Your task to perform on an android device: install app "WhatsApp Messenger" Image 0: 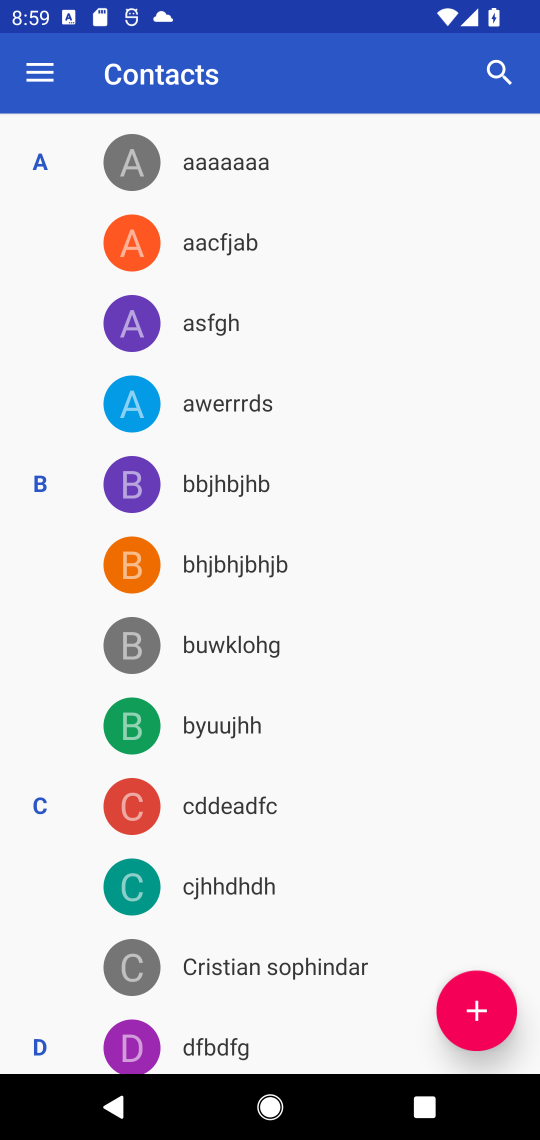
Step 0: press home button
Your task to perform on an android device: install app "WhatsApp Messenger" Image 1: 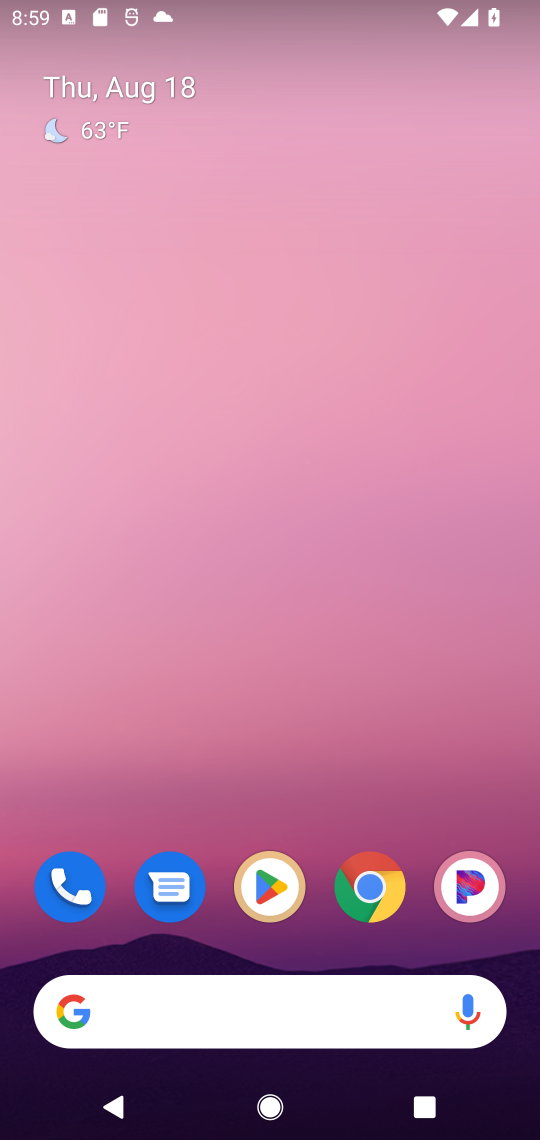
Step 1: click (266, 892)
Your task to perform on an android device: install app "WhatsApp Messenger" Image 2: 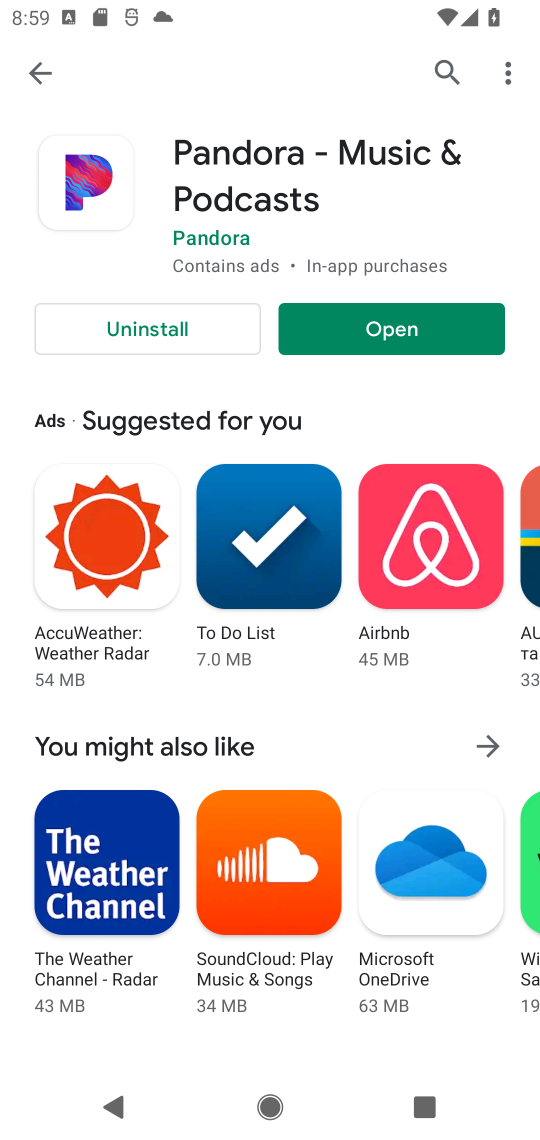
Step 2: click (440, 66)
Your task to perform on an android device: install app "WhatsApp Messenger" Image 3: 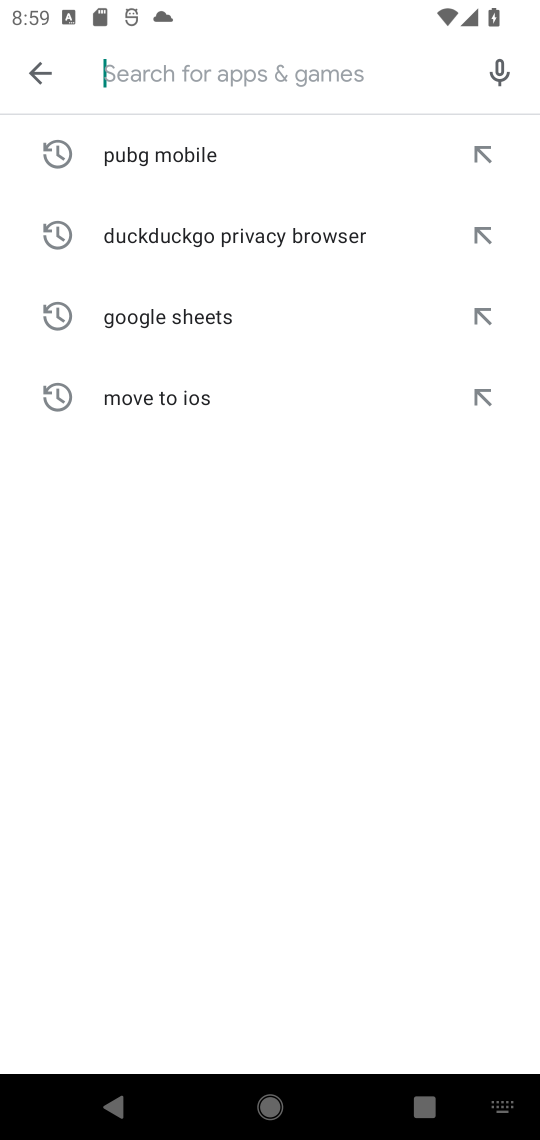
Step 3: type "WhatsApp Messenger"
Your task to perform on an android device: install app "WhatsApp Messenger" Image 4: 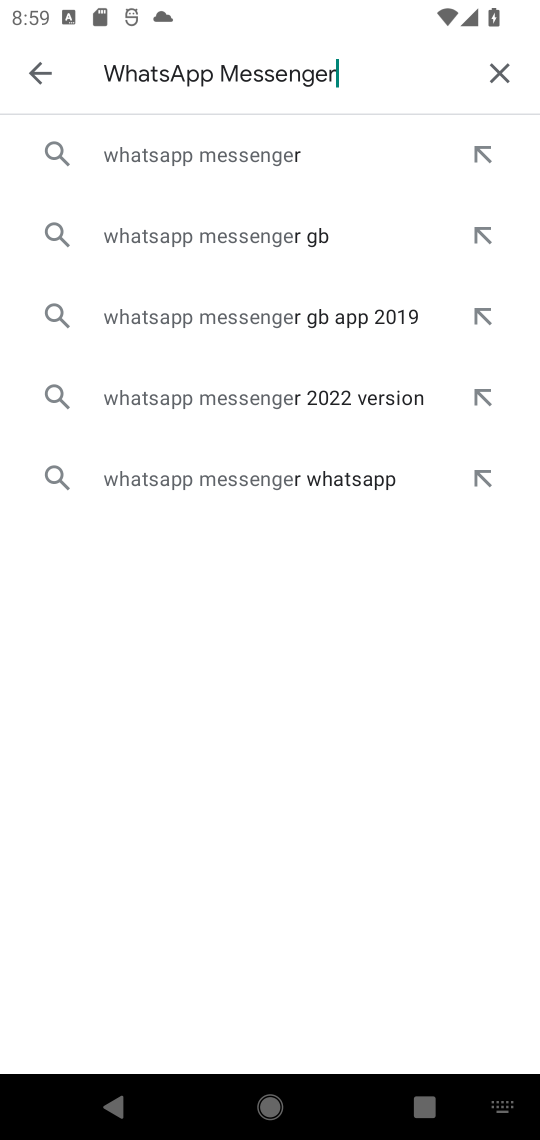
Step 4: type ""
Your task to perform on an android device: install app "WhatsApp Messenger" Image 5: 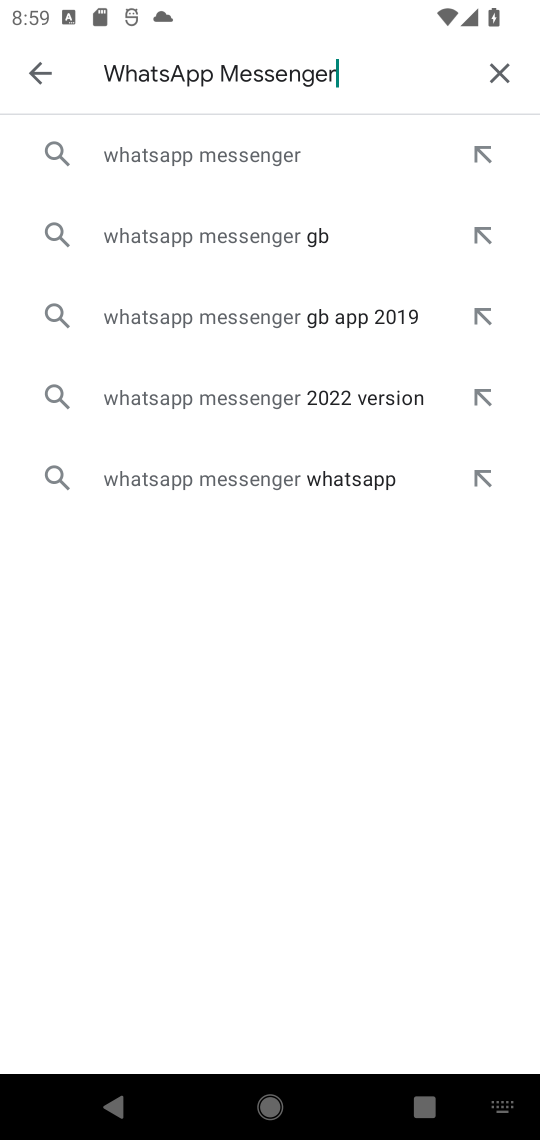
Step 5: click (252, 151)
Your task to perform on an android device: install app "WhatsApp Messenger" Image 6: 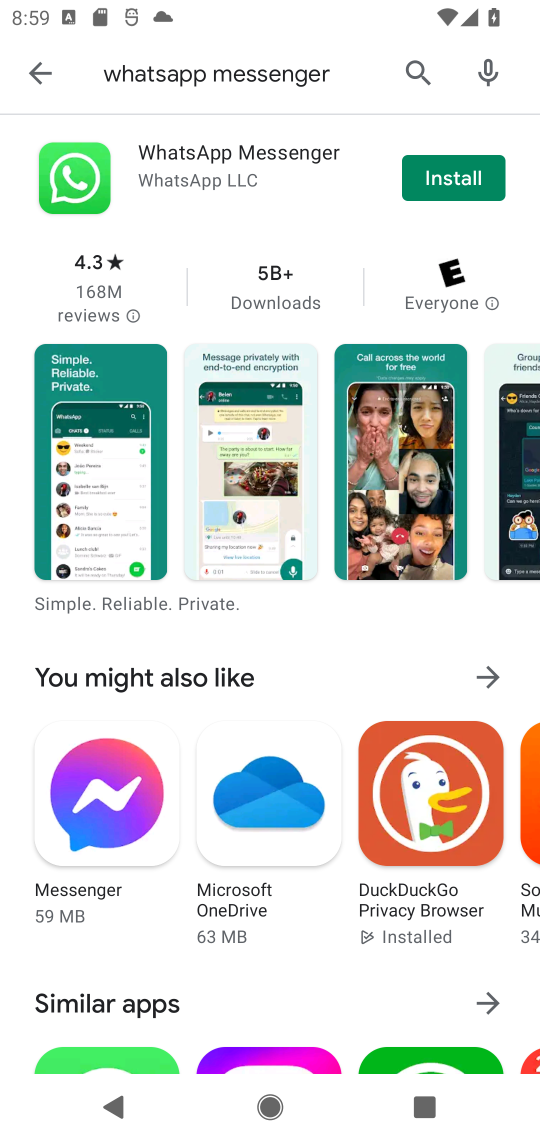
Step 6: click (437, 174)
Your task to perform on an android device: install app "WhatsApp Messenger" Image 7: 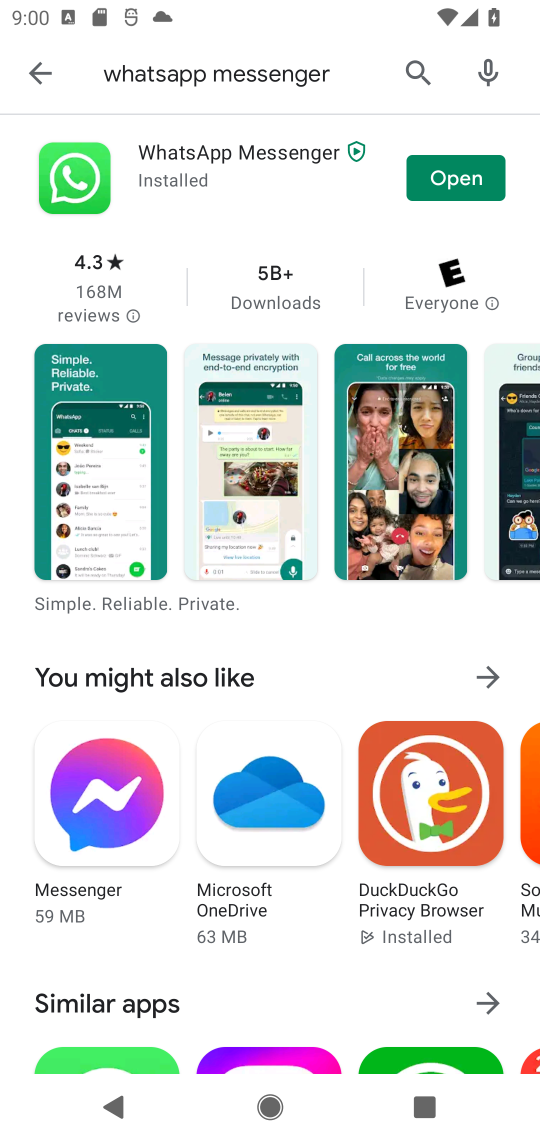
Step 7: task complete